Your task to perform on an android device: Open calendar and show me the first week of next month Image 0: 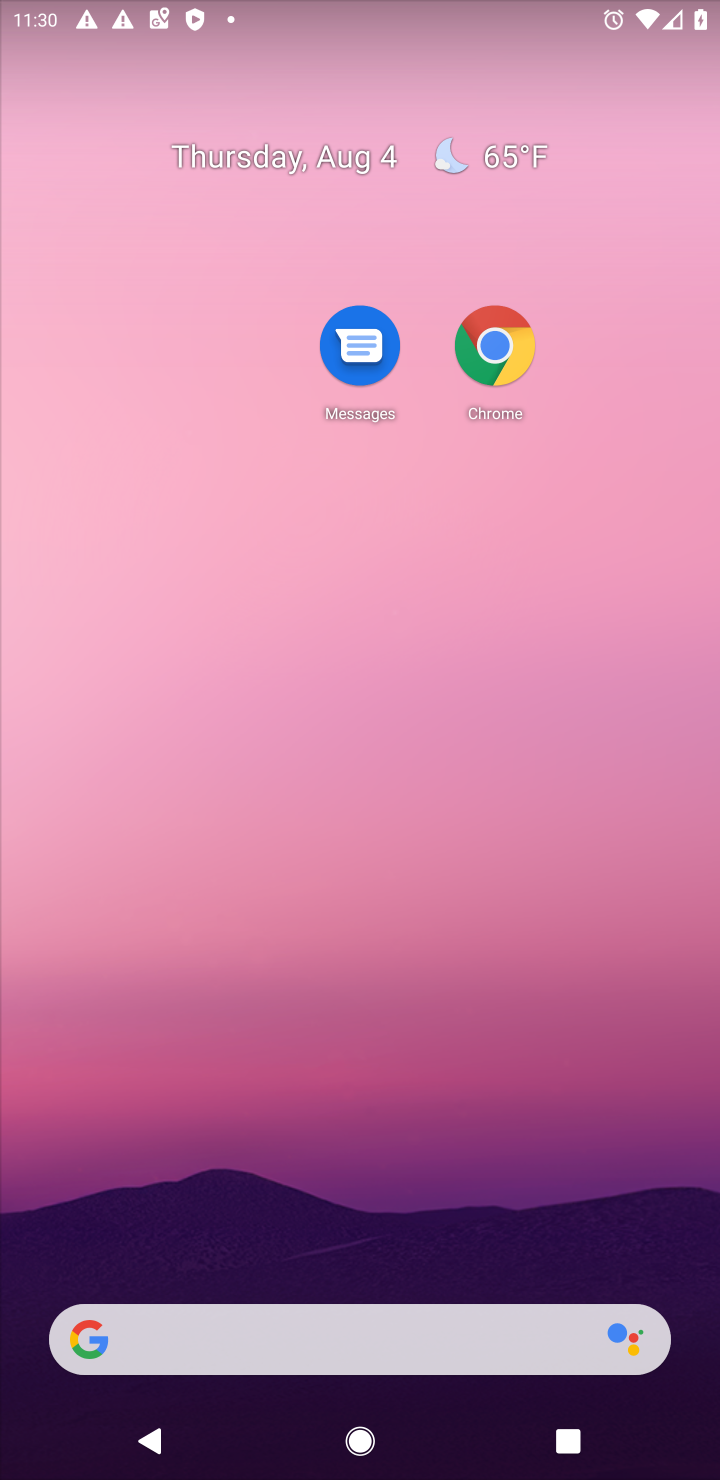
Step 0: drag from (495, 670) to (623, 201)
Your task to perform on an android device: Open calendar and show me the first week of next month Image 1: 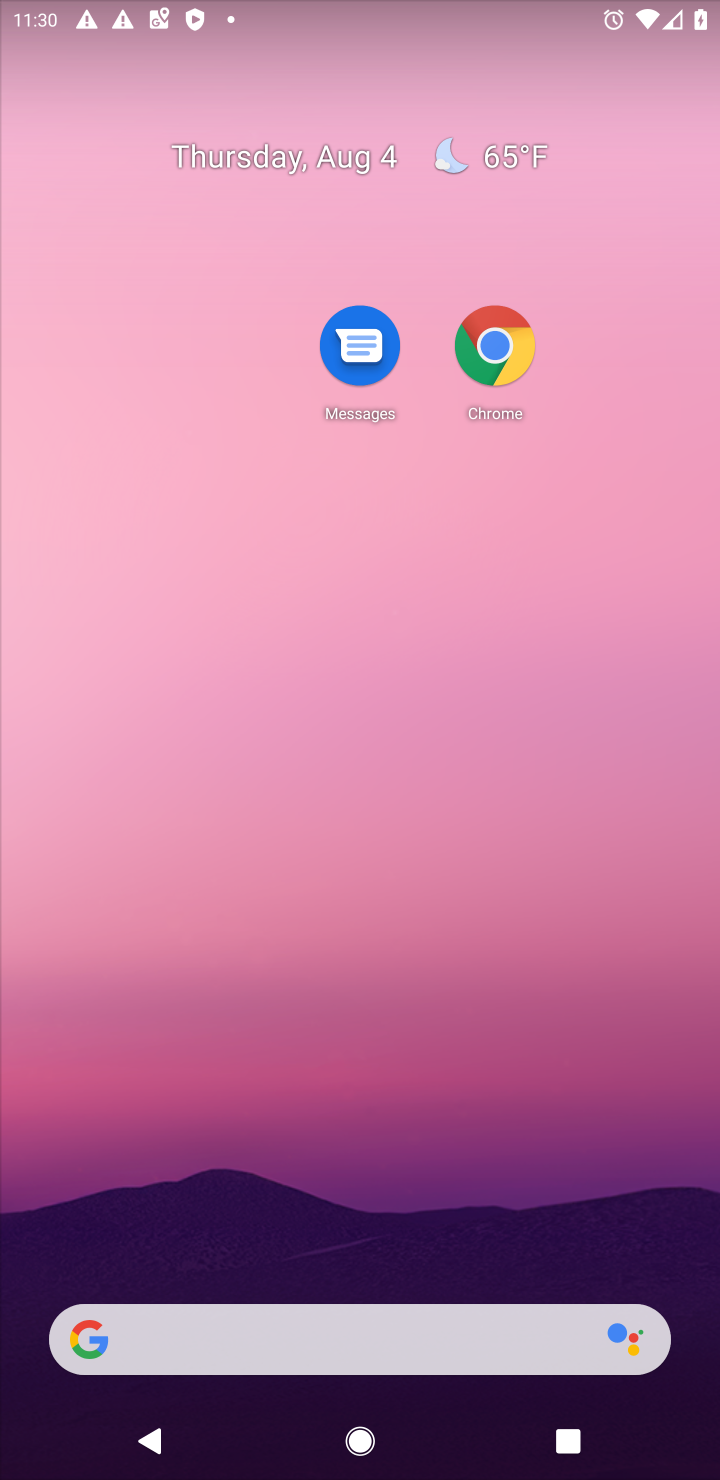
Step 1: drag from (544, 1287) to (559, 218)
Your task to perform on an android device: Open calendar and show me the first week of next month Image 2: 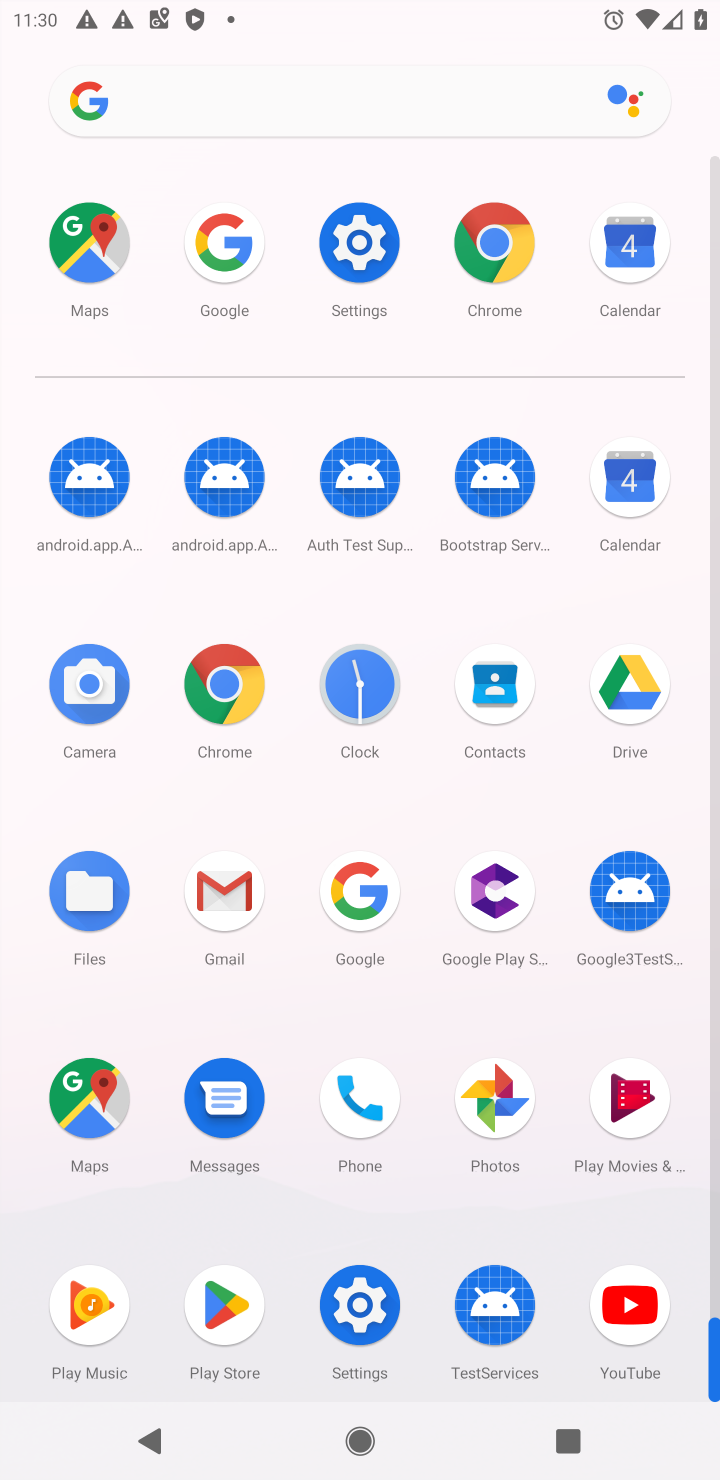
Step 2: click (628, 497)
Your task to perform on an android device: Open calendar and show me the first week of next month Image 3: 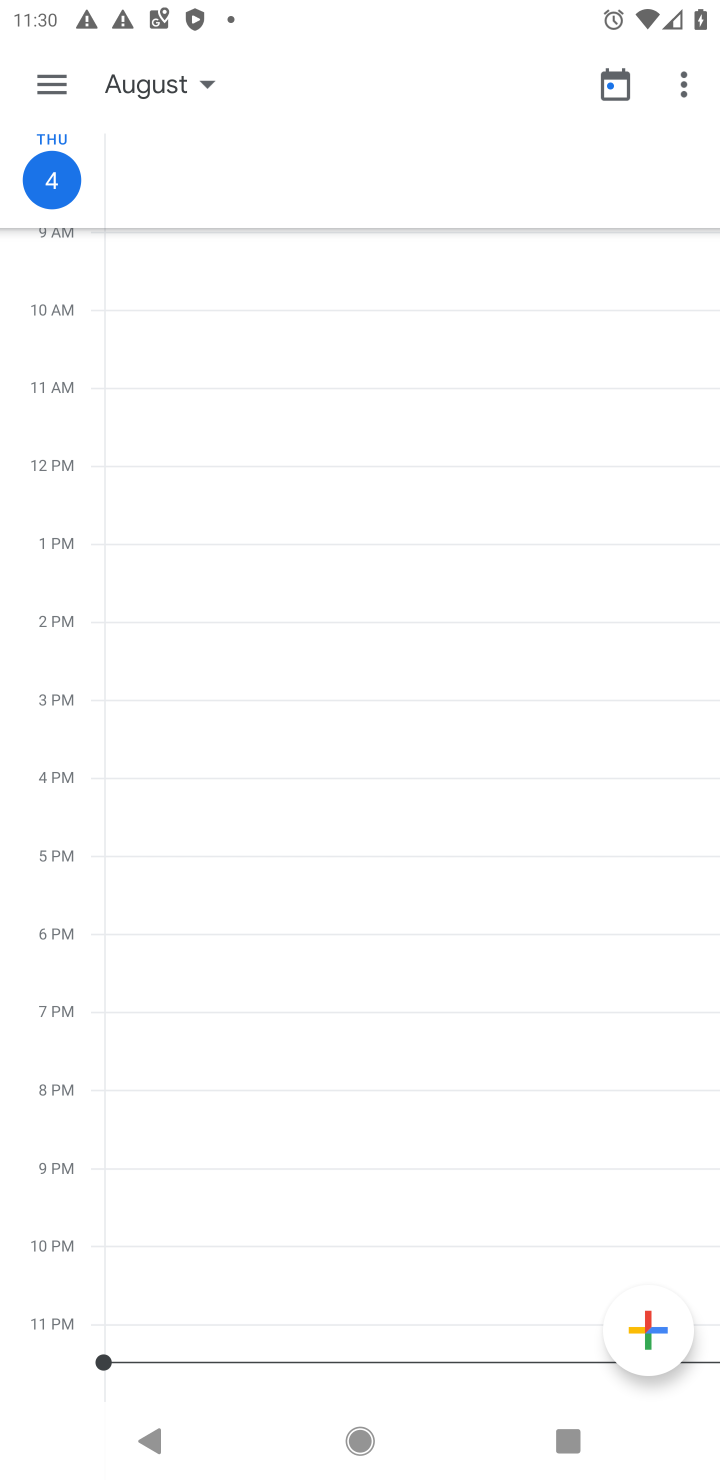
Step 3: click (135, 70)
Your task to perform on an android device: Open calendar and show me the first week of next month Image 4: 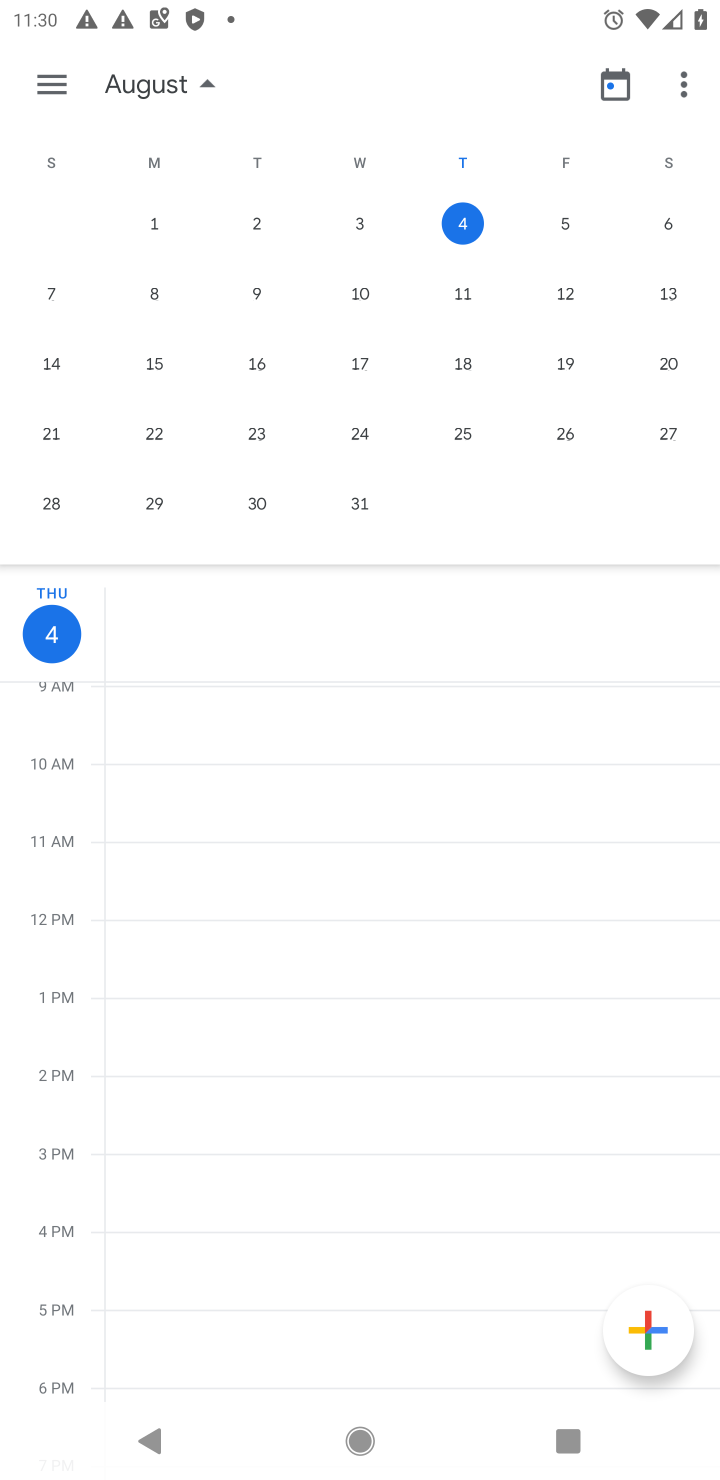
Step 4: drag from (585, 381) to (2, 251)
Your task to perform on an android device: Open calendar and show me the first week of next month Image 5: 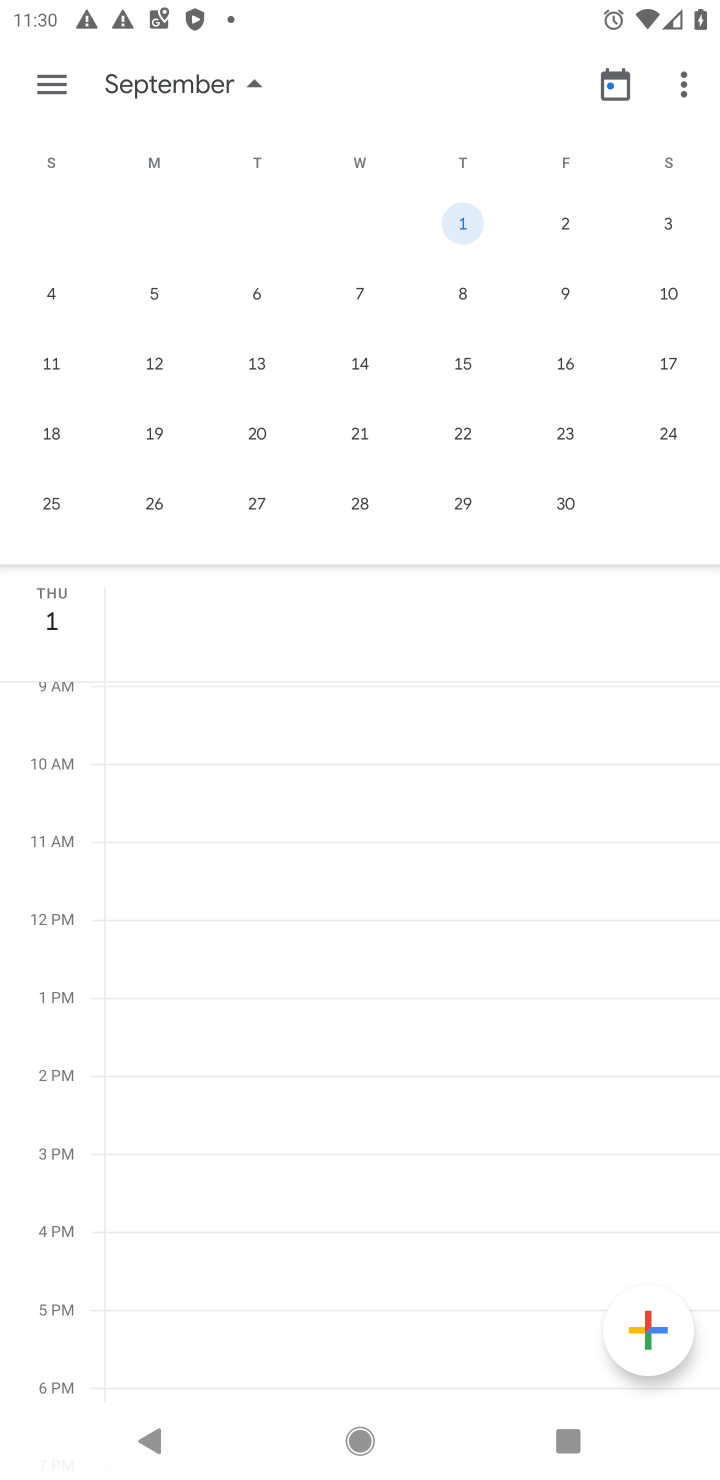
Step 5: click (367, 296)
Your task to perform on an android device: Open calendar and show me the first week of next month Image 6: 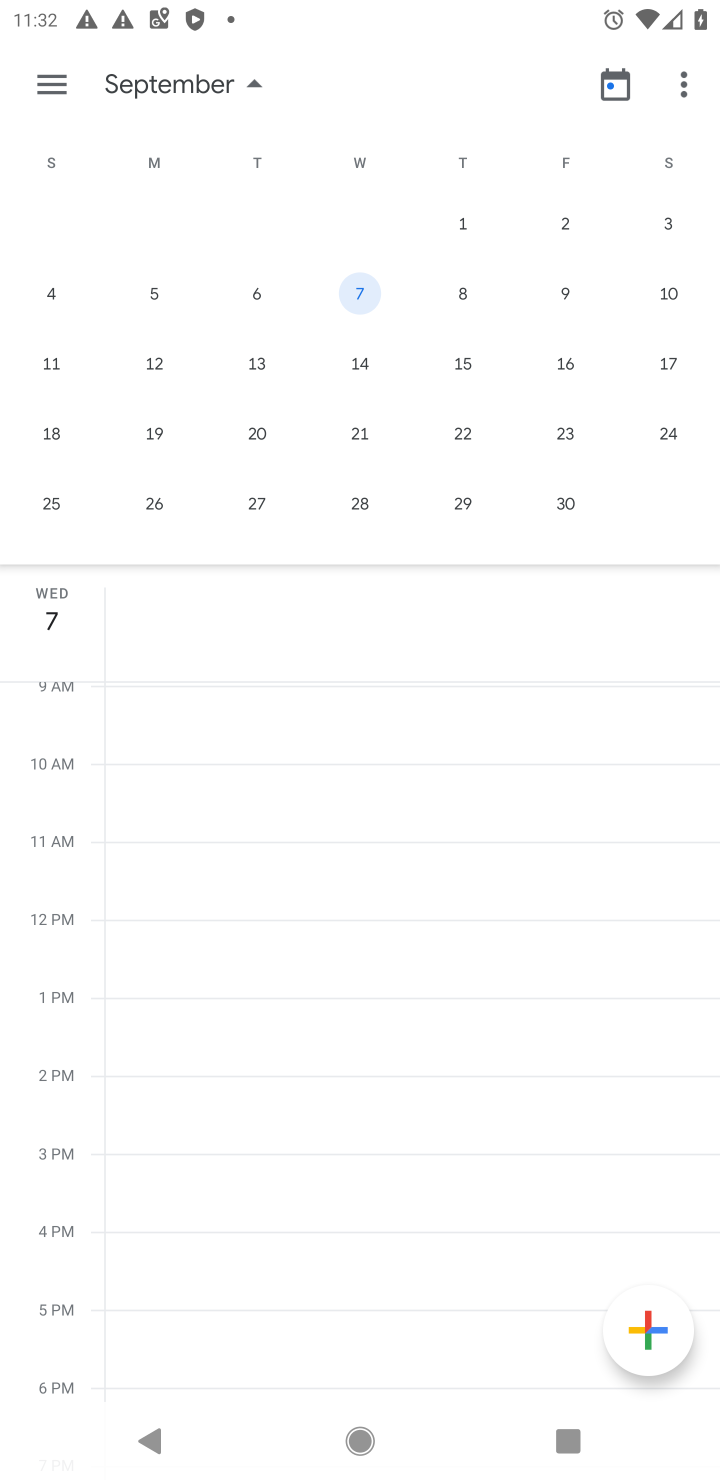
Step 6: task complete